Your task to perform on an android device: visit the assistant section in the google photos Image 0: 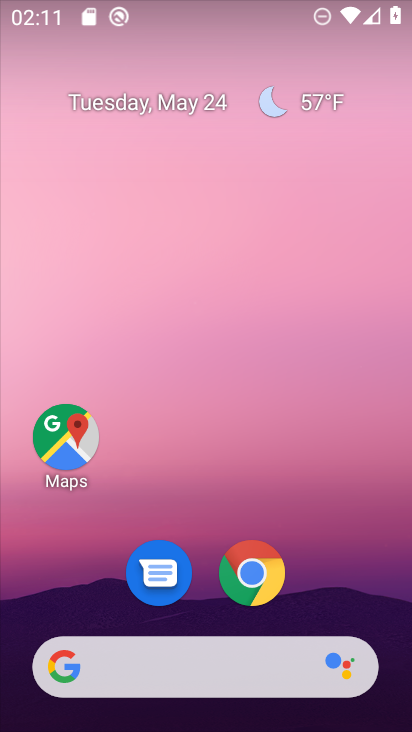
Step 0: drag from (382, 542) to (302, 117)
Your task to perform on an android device: visit the assistant section in the google photos Image 1: 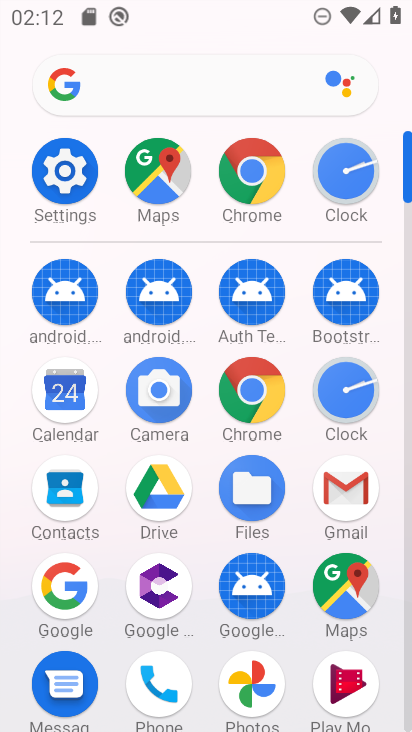
Step 1: click (265, 680)
Your task to perform on an android device: visit the assistant section in the google photos Image 2: 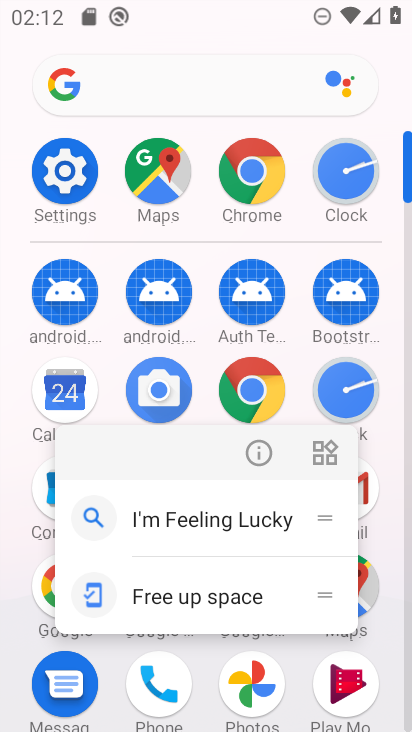
Step 2: click (258, 705)
Your task to perform on an android device: visit the assistant section in the google photos Image 3: 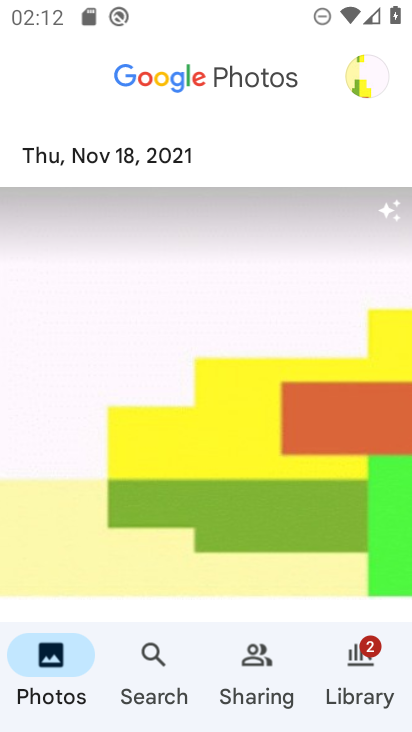
Step 3: click (368, 674)
Your task to perform on an android device: visit the assistant section in the google photos Image 4: 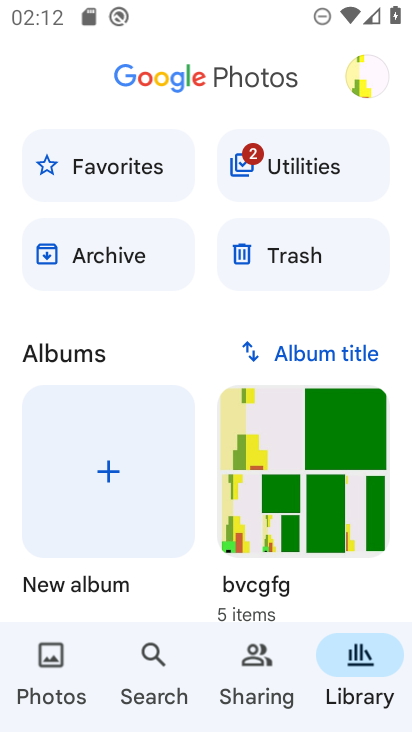
Step 4: task complete